Your task to perform on an android device: Go to Reddit.com Image 0: 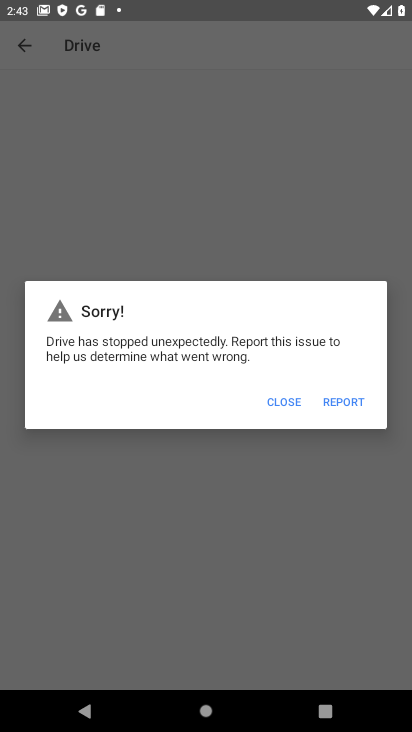
Step 0: press back button
Your task to perform on an android device: Go to Reddit.com Image 1: 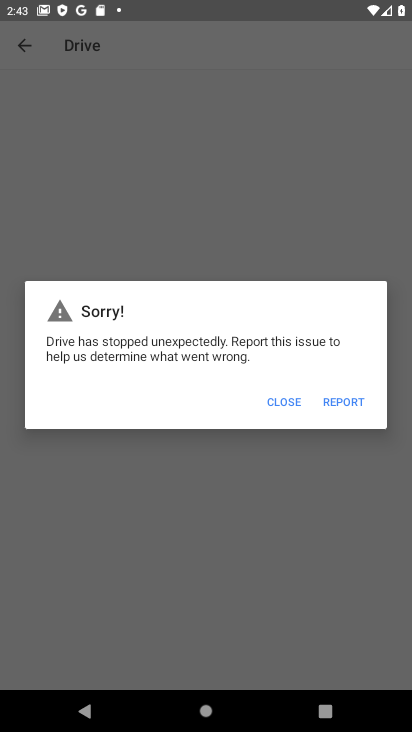
Step 1: press home button
Your task to perform on an android device: Go to Reddit.com Image 2: 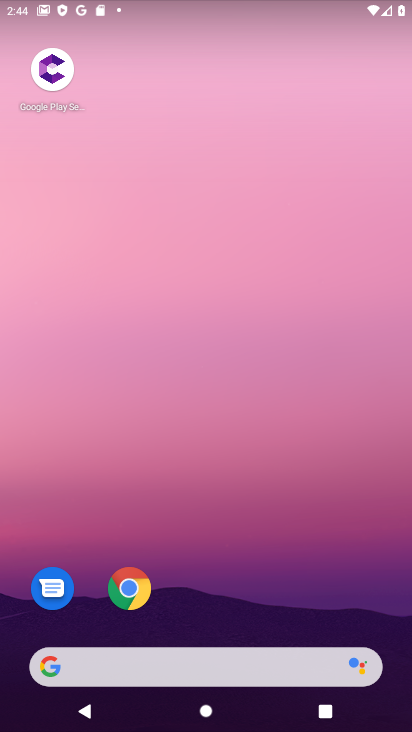
Step 2: click (132, 592)
Your task to perform on an android device: Go to Reddit.com Image 3: 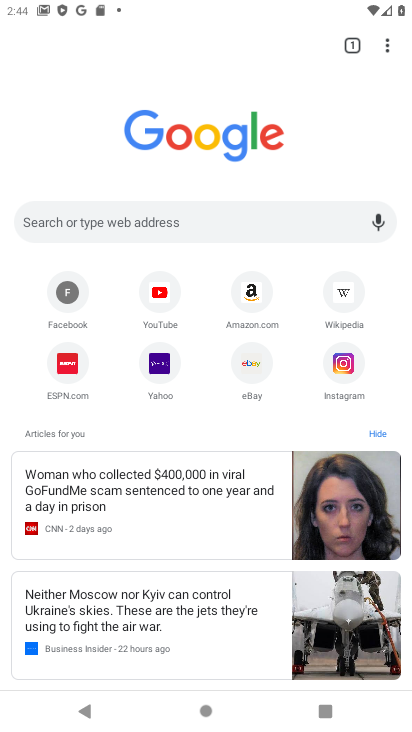
Step 3: click (161, 218)
Your task to perform on an android device: Go to Reddit.com Image 4: 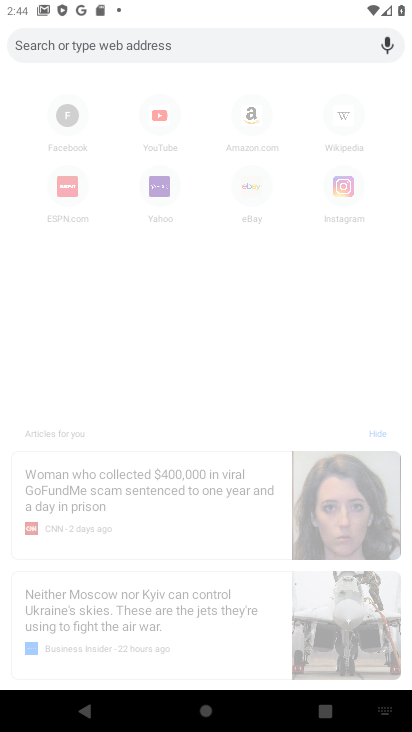
Step 4: type "Reddit.com"
Your task to perform on an android device: Go to Reddit.com Image 5: 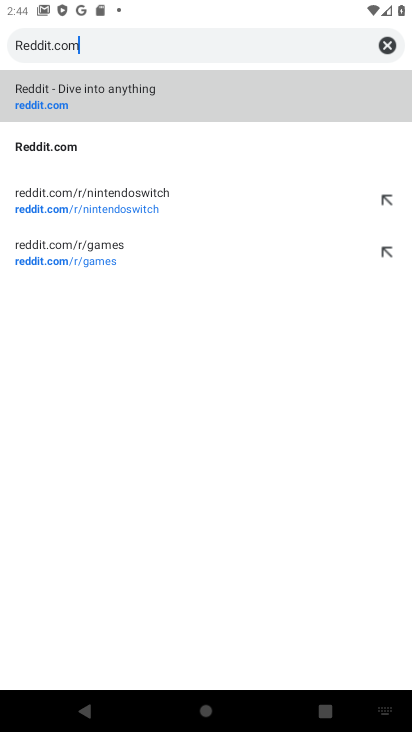
Step 5: click (59, 145)
Your task to perform on an android device: Go to Reddit.com Image 6: 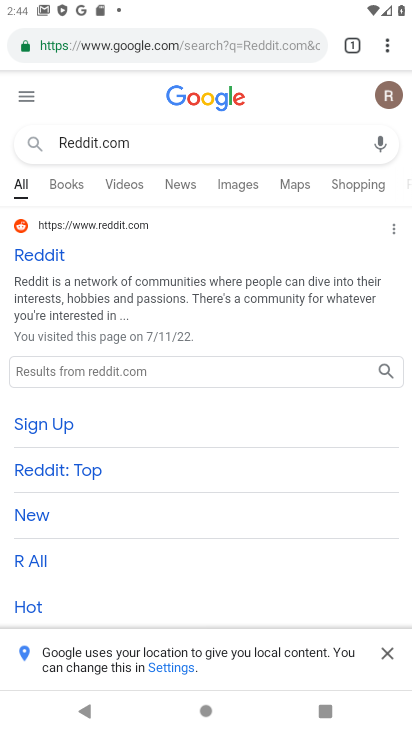
Step 6: task complete